Your task to perform on an android device: Find coffee shops on Maps Image 0: 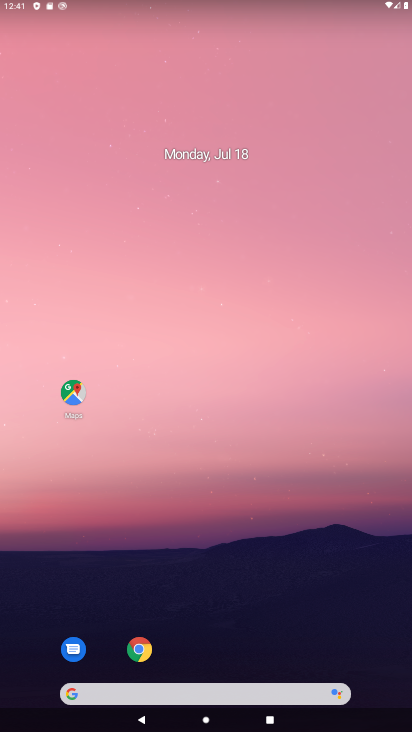
Step 0: click (72, 394)
Your task to perform on an android device: Find coffee shops on Maps Image 1: 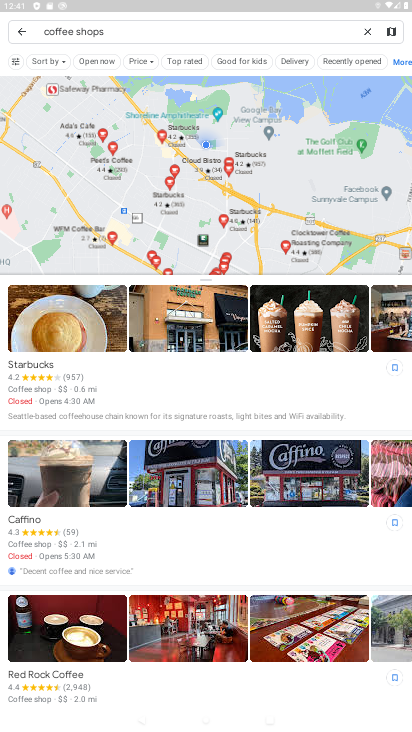
Step 1: task complete